Your task to perform on an android device: Open Chrome and go to settings Image 0: 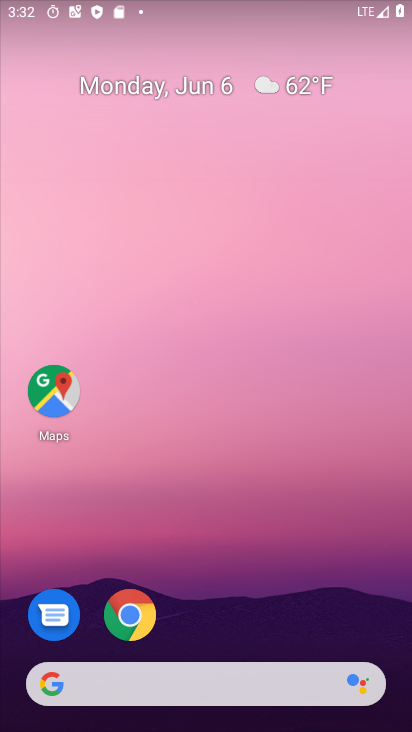
Step 0: drag from (193, 705) to (189, 46)
Your task to perform on an android device: Open Chrome and go to settings Image 1: 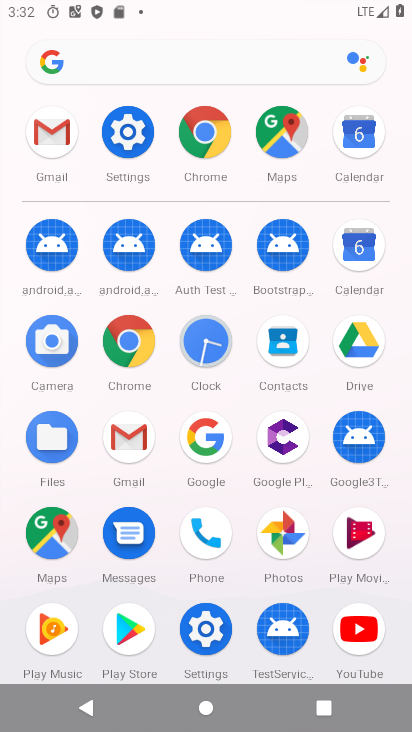
Step 1: click (128, 347)
Your task to perform on an android device: Open Chrome and go to settings Image 2: 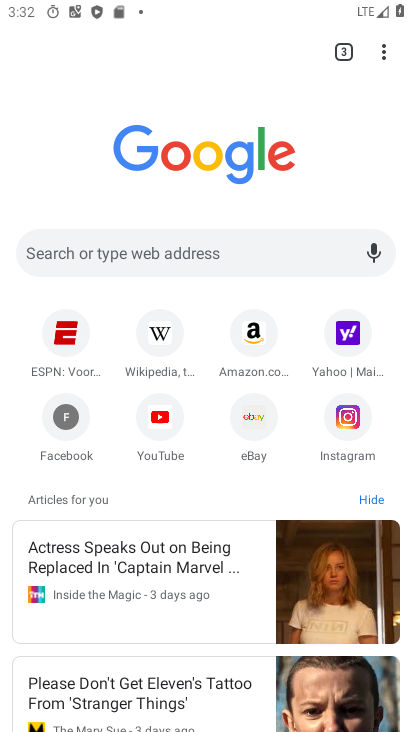
Step 2: click (388, 51)
Your task to perform on an android device: Open Chrome and go to settings Image 3: 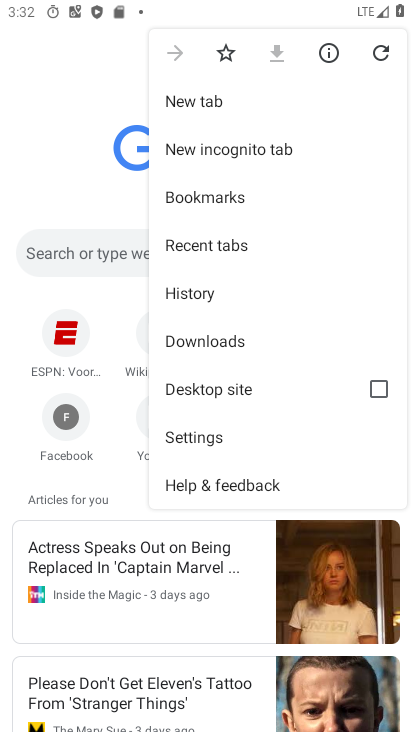
Step 3: click (223, 444)
Your task to perform on an android device: Open Chrome and go to settings Image 4: 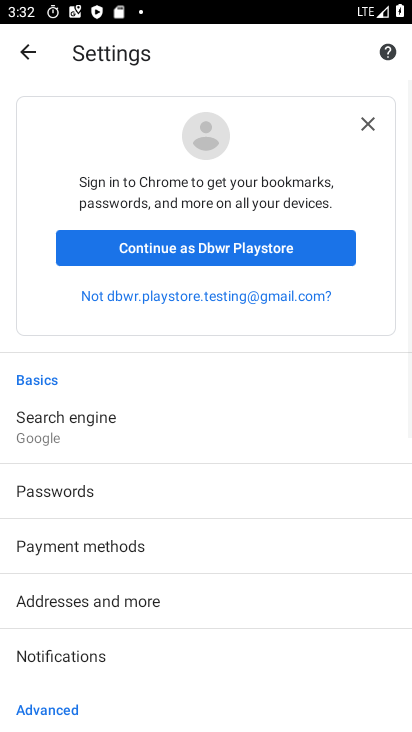
Step 4: task complete